Your task to perform on an android device: Set the phone to "Do not disturb". Image 0: 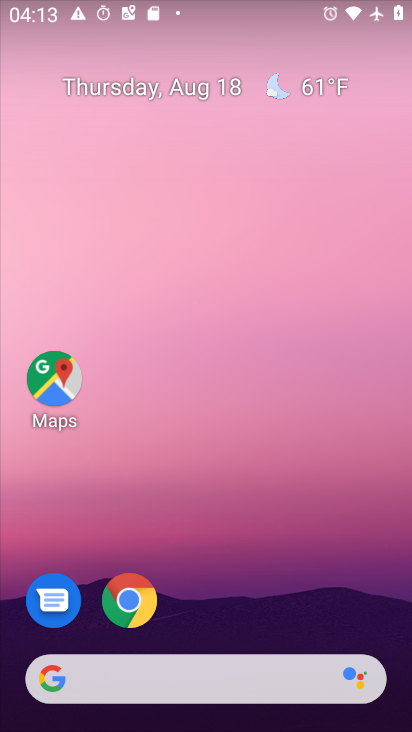
Step 0: press home button
Your task to perform on an android device: Set the phone to "Do not disturb". Image 1: 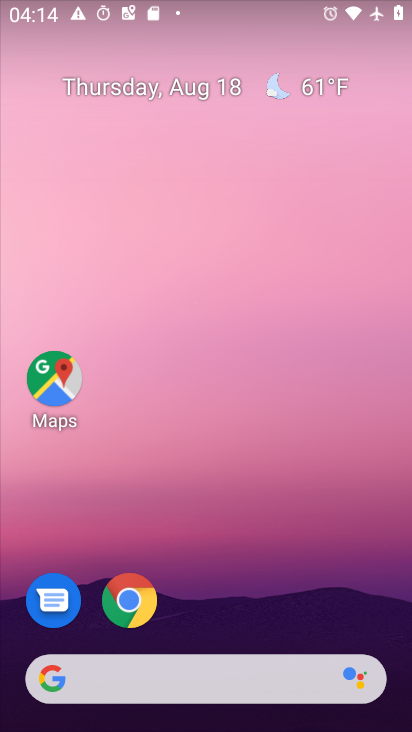
Step 1: drag from (229, 15) to (213, 545)
Your task to perform on an android device: Set the phone to "Do not disturb". Image 2: 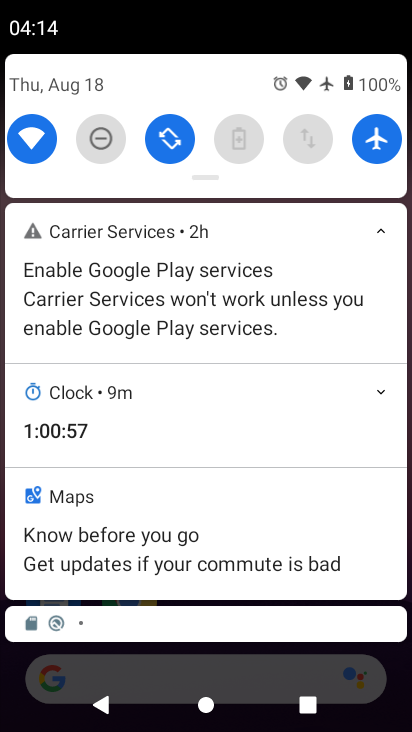
Step 2: click (100, 142)
Your task to perform on an android device: Set the phone to "Do not disturb". Image 3: 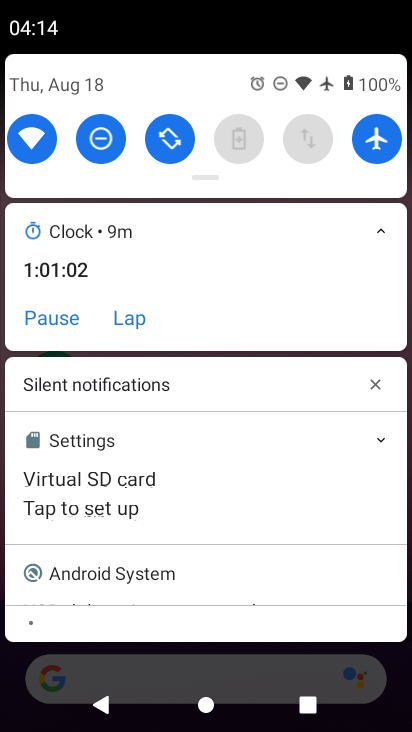
Step 3: task complete